Your task to perform on an android device: clear history in the chrome app Image 0: 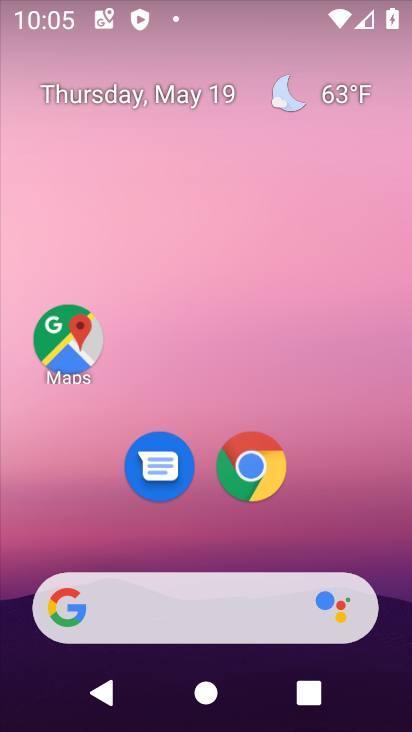
Step 0: drag from (391, 640) to (271, 72)
Your task to perform on an android device: clear history in the chrome app Image 1: 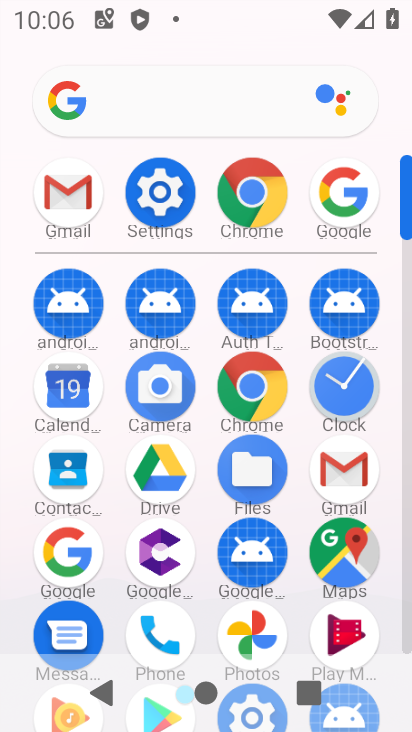
Step 1: click (249, 195)
Your task to perform on an android device: clear history in the chrome app Image 2: 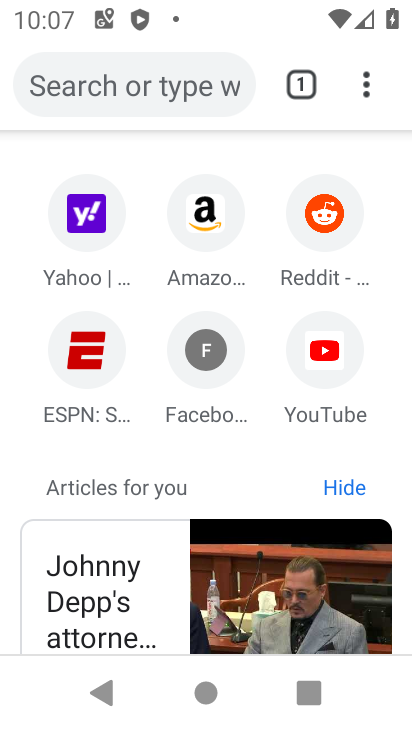
Step 2: click (366, 92)
Your task to perform on an android device: clear history in the chrome app Image 3: 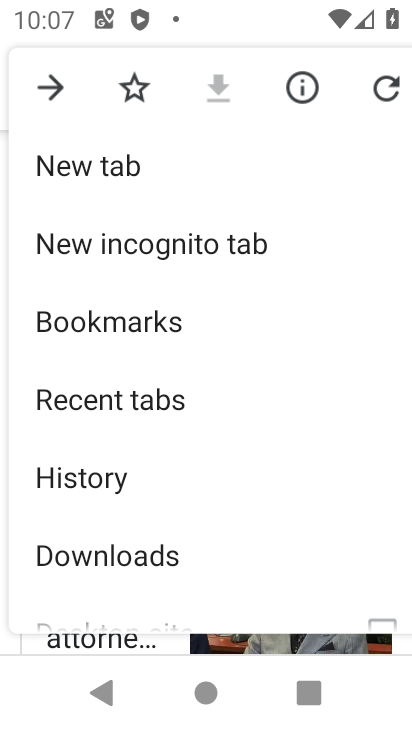
Step 3: click (79, 473)
Your task to perform on an android device: clear history in the chrome app Image 4: 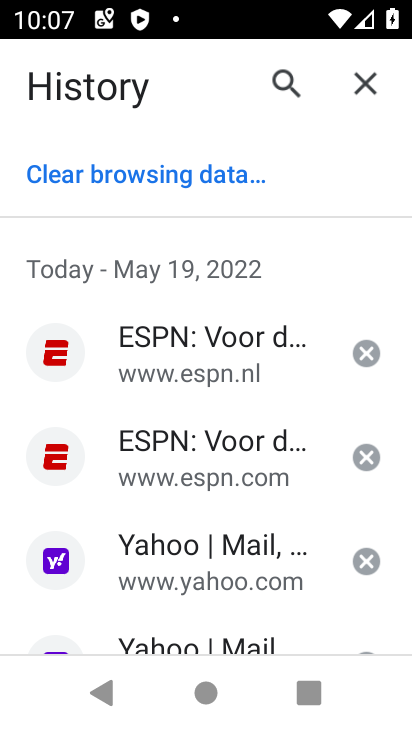
Step 4: click (161, 167)
Your task to perform on an android device: clear history in the chrome app Image 5: 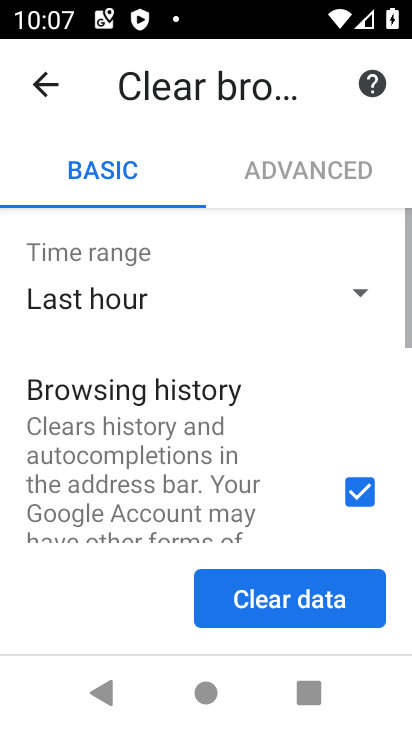
Step 5: click (298, 580)
Your task to perform on an android device: clear history in the chrome app Image 6: 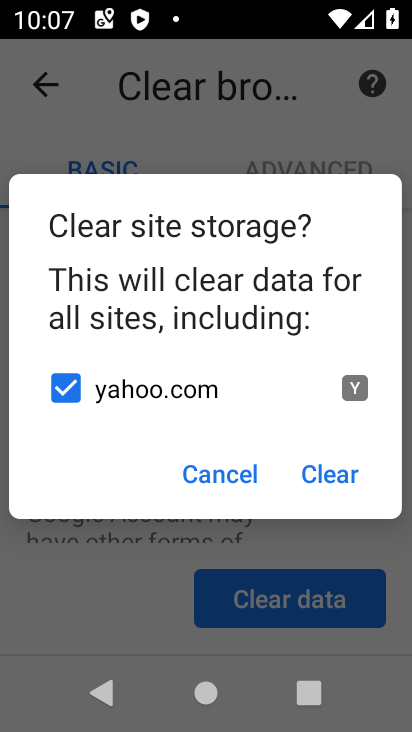
Step 6: click (332, 492)
Your task to perform on an android device: clear history in the chrome app Image 7: 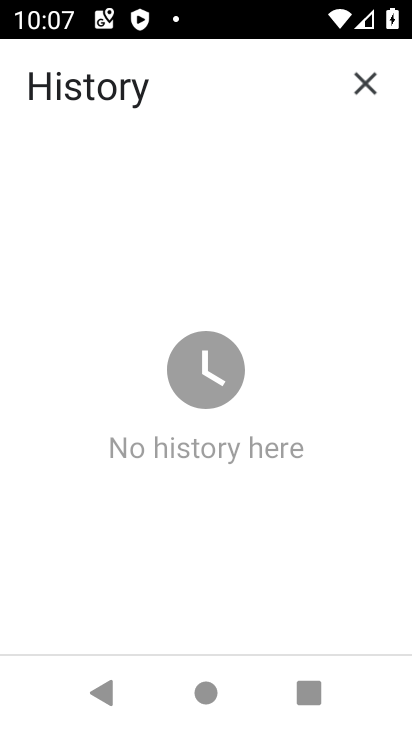
Step 7: task complete